Your task to perform on an android device: delete a single message in the gmail app Image 0: 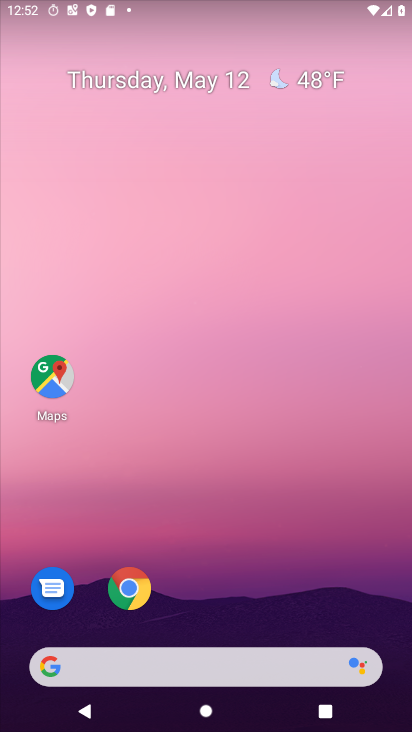
Step 0: drag from (241, 598) to (238, 91)
Your task to perform on an android device: delete a single message in the gmail app Image 1: 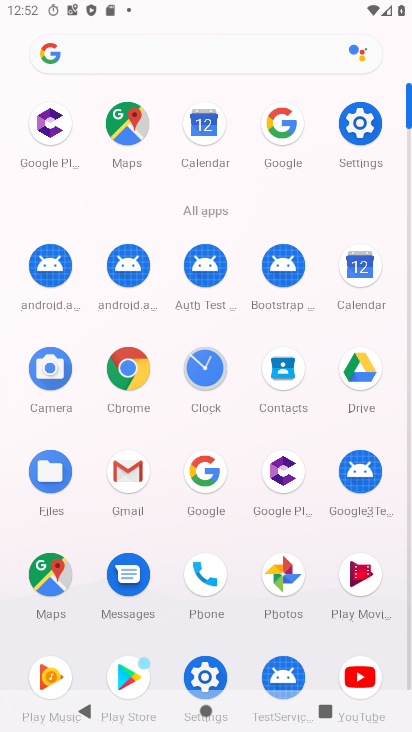
Step 1: click (134, 467)
Your task to perform on an android device: delete a single message in the gmail app Image 2: 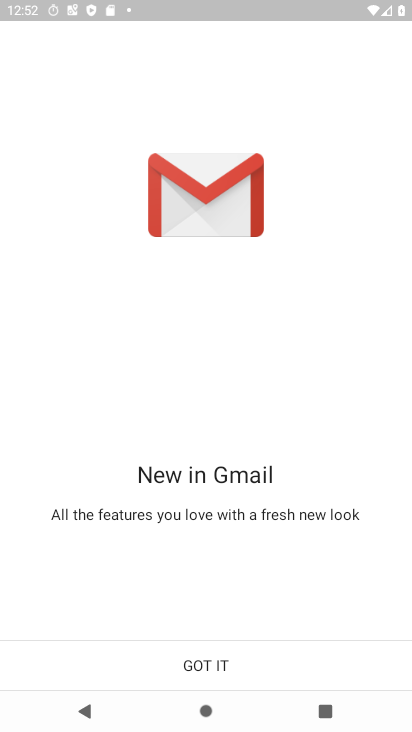
Step 2: click (204, 656)
Your task to perform on an android device: delete a single message in the gmail app Image 3: 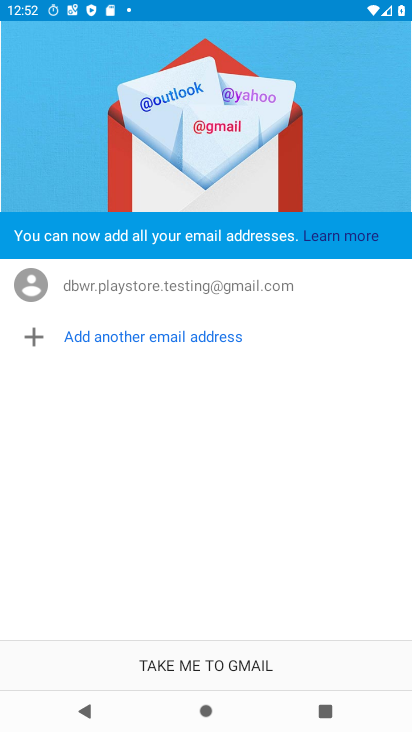
Step 3: click (204, 656)
Your task to perform on an android device: delete a single message in the gmail app Image 4: 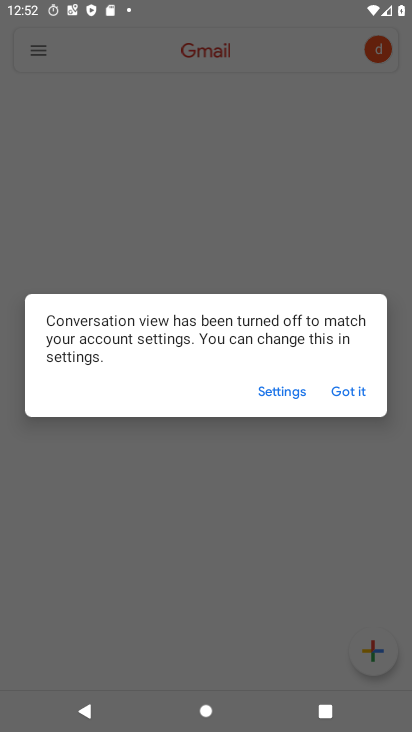
Step 4: click (342, 391)
Your task to perform on an android device: delete a single message in the gmail app Image 5: 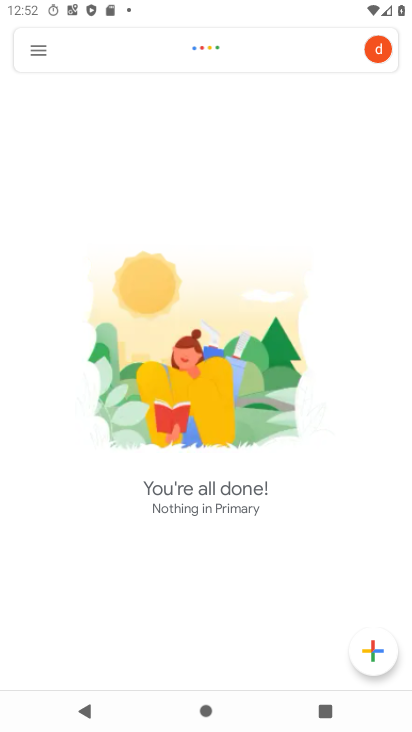
Step 5: click (33, 38)
Your task to perform on an android device: delete a single message in the gmail app Image 6: 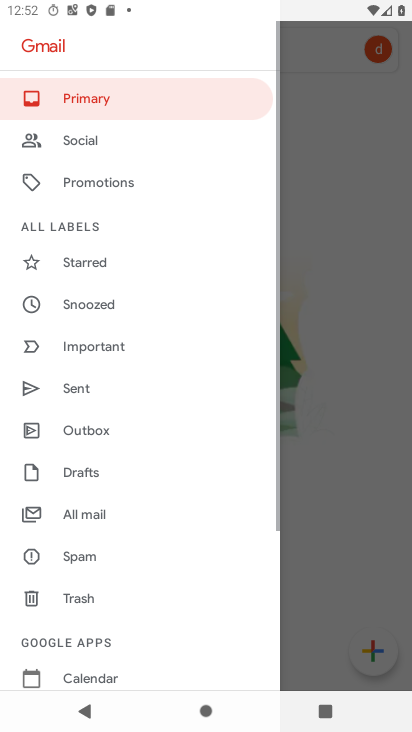
Step 6: drag from (137, 481) to (129, 300)
Your task to perform on an android device: delete a single message in the gmail app Image 7: 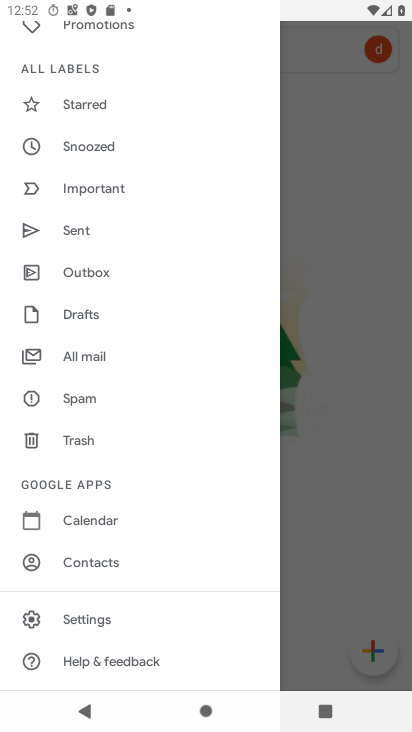
Step 7: click (79, 352)
Your task to perform on an android device: delete a single message in the gmail app Image 8: 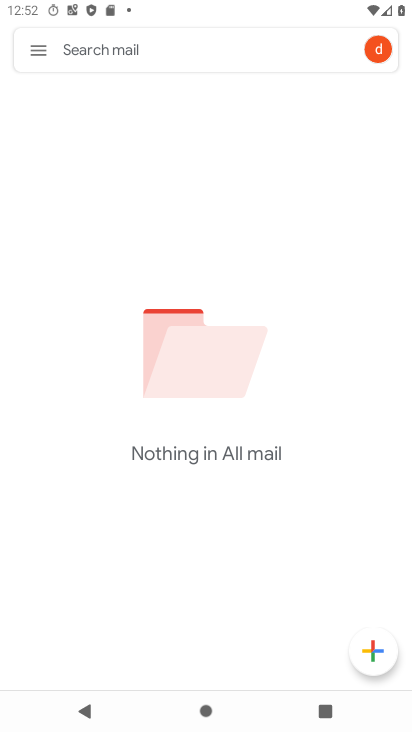
Step 8: task complete